Your task to perform on an android device: all mails in gmail Image 0: 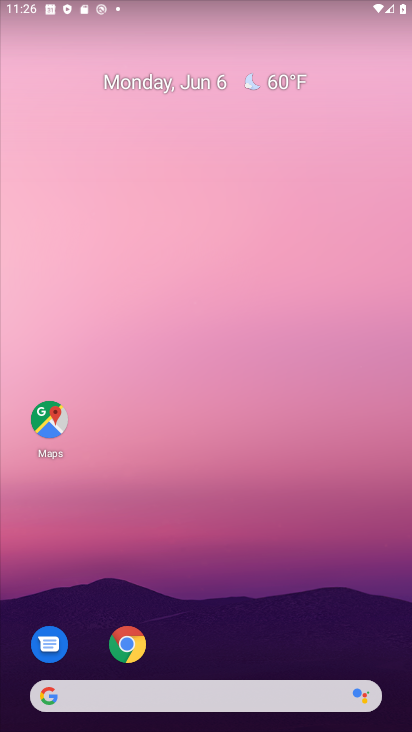
Step 0: drag from (117, 726) to (176, 3)
Your task to perform on an android device: all mails in gmail Image 1: 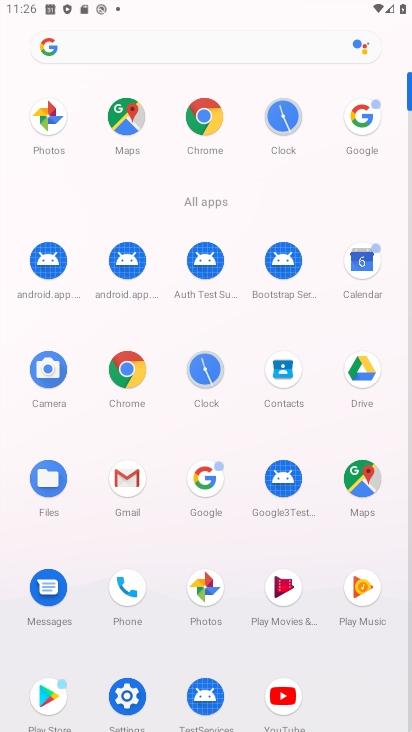
Step 1: click (128, 492)
Your task to perform on an android device: all mails in gmail Image 2: 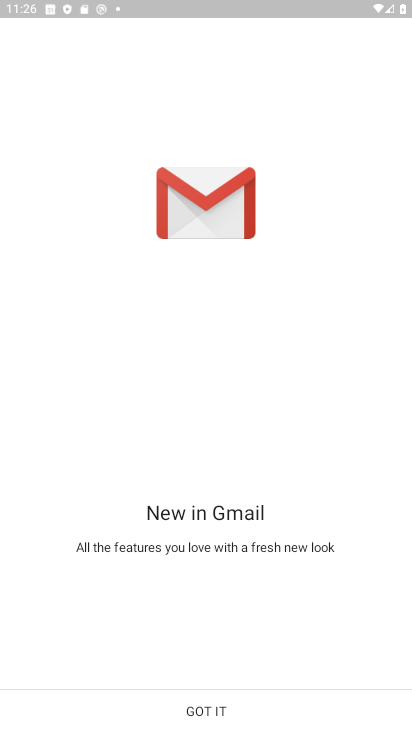
Step 2: click (212, 709)
Your task to perform on an android device: all mails in gmail Image 3: 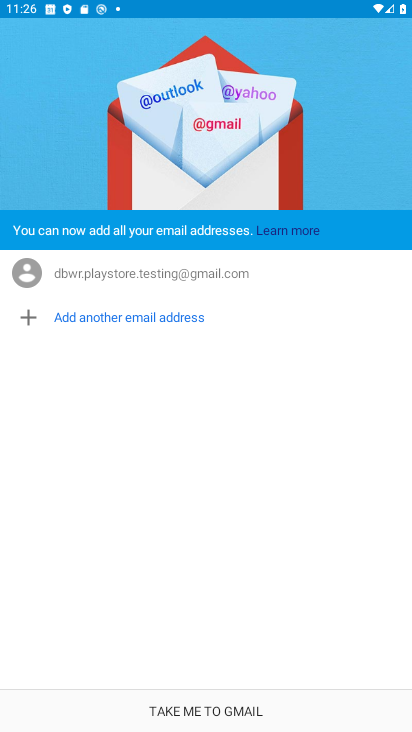
Step 3: click (241, 717)
Your task to perform on an android device: all mails in gmail Image 4: 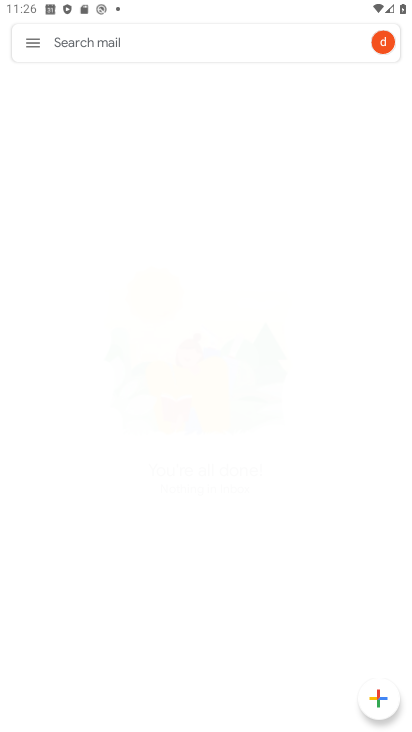
Step 4: click (36, 46)
Your task to perform on an android device: all mails in gmail Image 5: 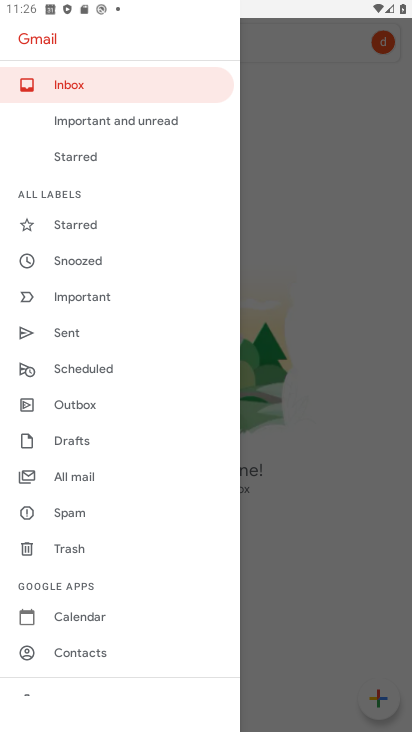
Step 5: click (56, 483)
Your task to perform on an android device: all mails in gmail Image 6: 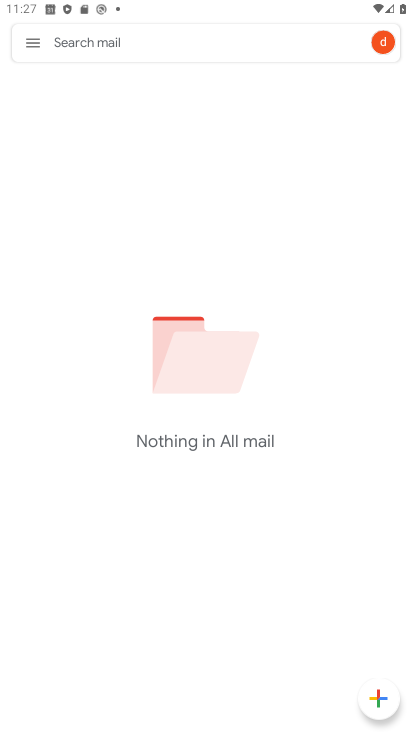
Step 6: task complete